Your task to perform on an android device: check data usage Image 0: 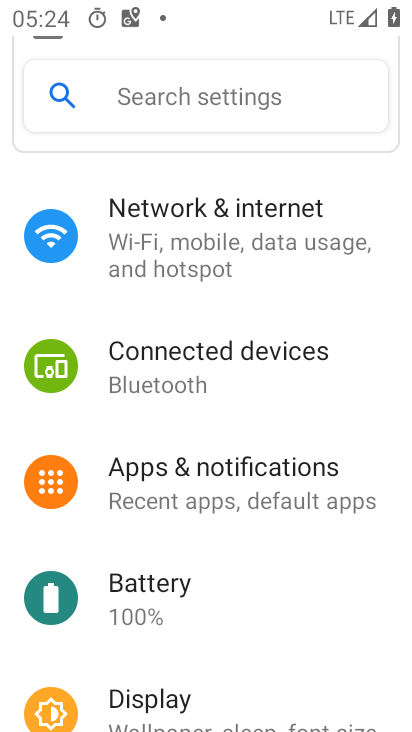
Step 0: click (189, 234)
Your task to perform on an android device: check data usage Image 1: 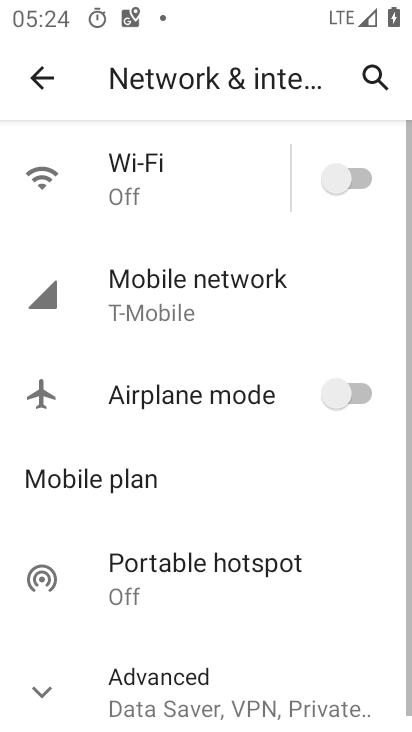
Step 1: click (219, 302)
Your task to perform on an android device: check data usage Image 2: 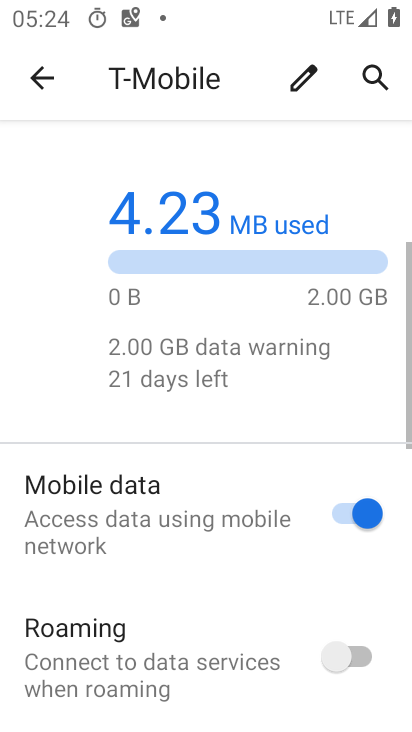
Step 2: task complete